Your task to perform on an android device: Open eBay Image 0: 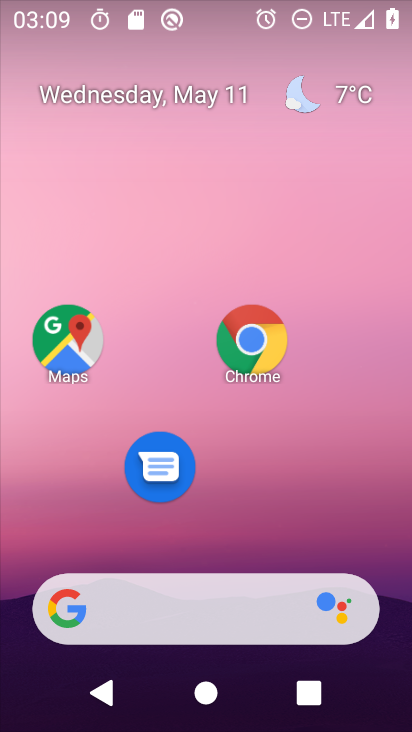
Step 0: drag from (174, 626) to (265, 158)
Your task to perform on an android device: Open eBay Image 1: 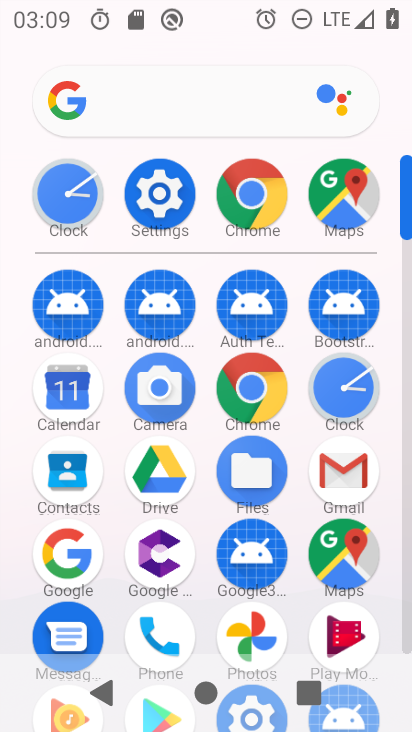
Step 1: click (259, 203)
Your task to perform on an android device: Open eBay Image 2: 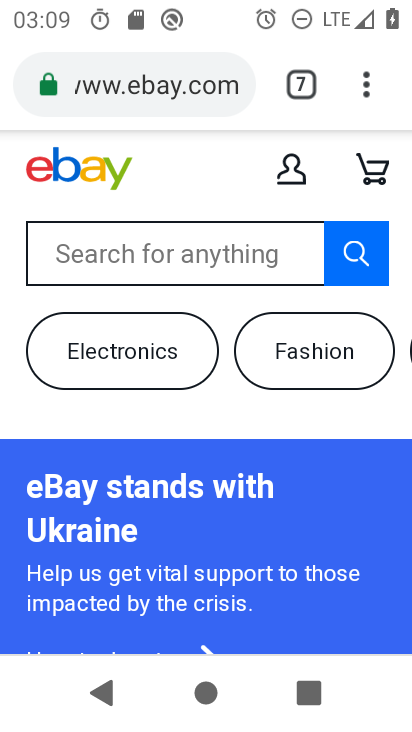
Step 2: task complete